Your task to perform on an android device: Open Google Image 0: 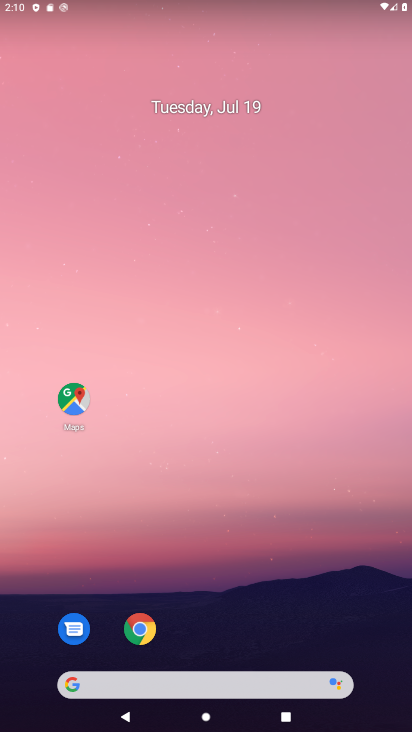
Step 0: drag from (220, 500) to (228, 170)
Your task to perform on an android device: Open Google Image 1: 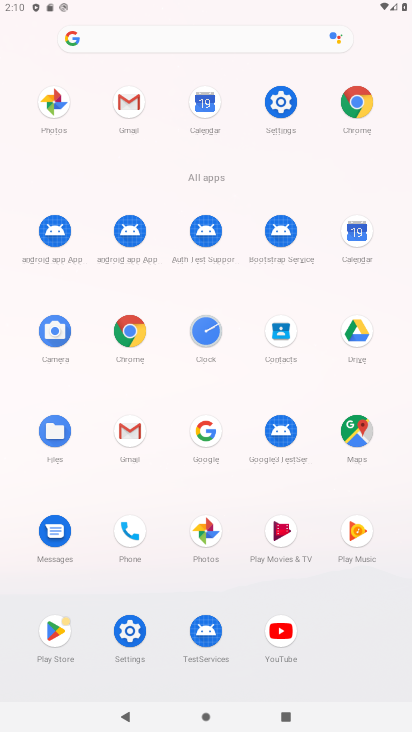
Step 1: click (208, 431)
Your task to perform on an android device: Open Google Image 2: 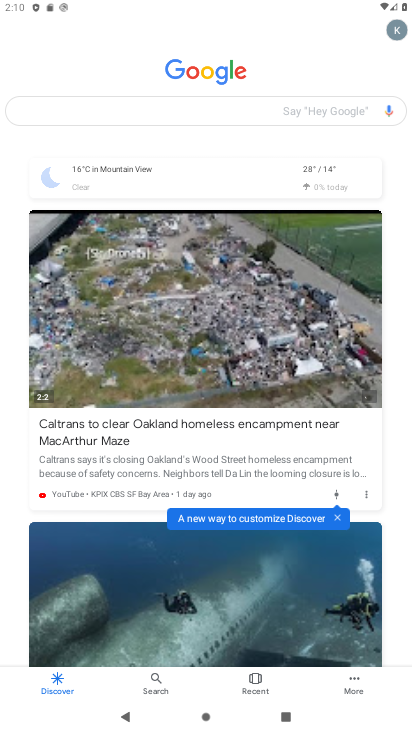
Step 2: task complete